Your task to perform on an android device: add a contact Image 0: 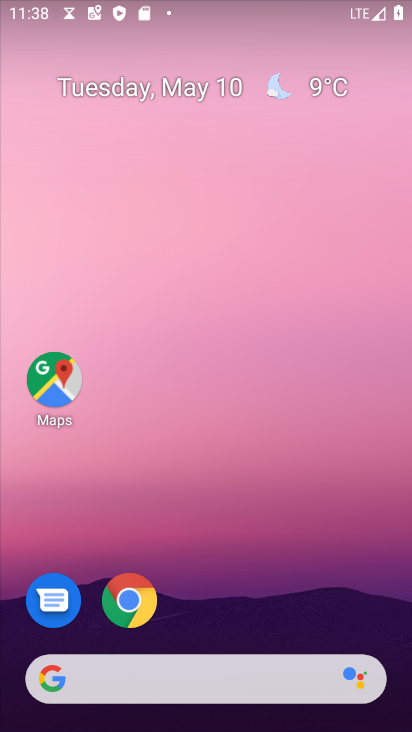
Step 0: drag from (253, 585) to (143, 50)
Your task to perform on an android device: add a contact Image 1: 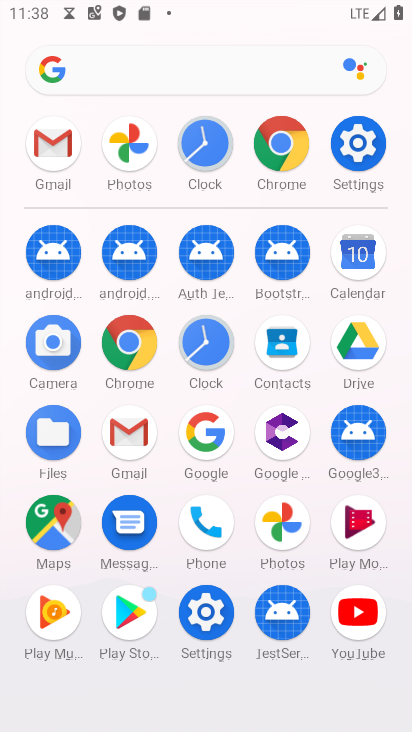
Step 1: click (278, 355)
Your task to perform on an android device: add a contact Image 2: 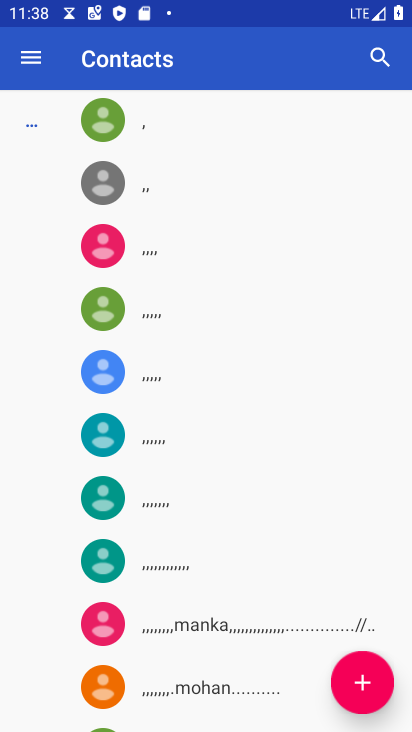
Step 2: click (370, 678)
Your task to perform on an android device: add a contact Image 3: 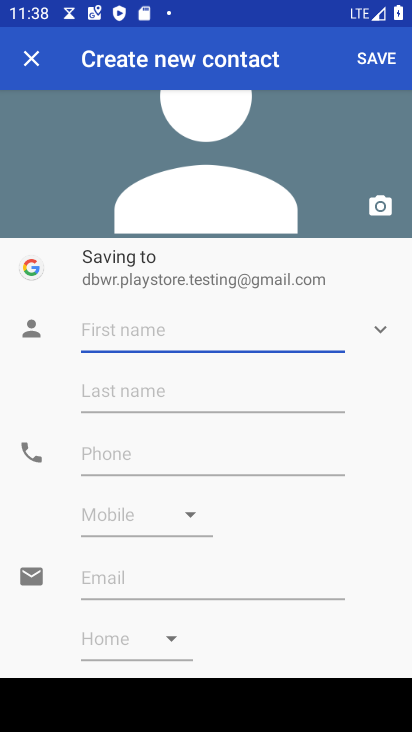
Step 3: type "ghdfg"
Your task to perform on an android device: add a contact Image 4: 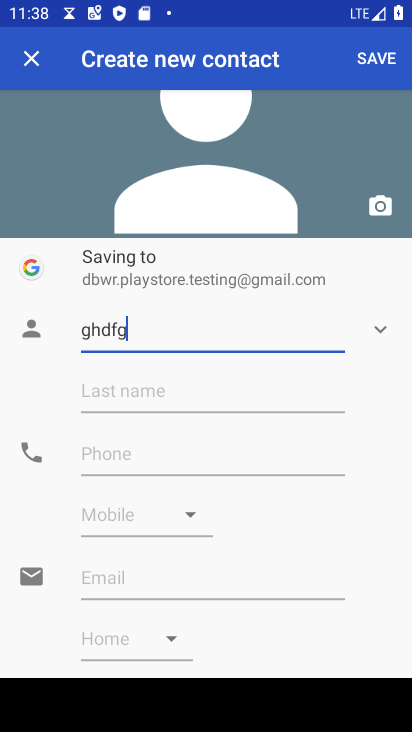
Step 4: click (190, 386)
Your task to perform on an android device: add a contact Image 5: 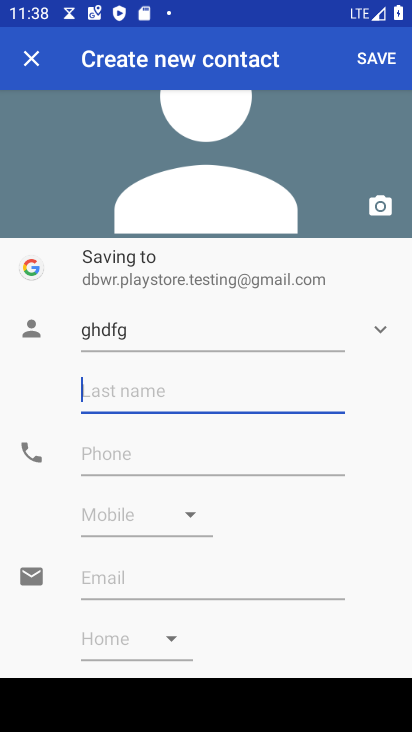
Step 5: type "htyth"
Your task to perform on an android device: add a contact Image 6: 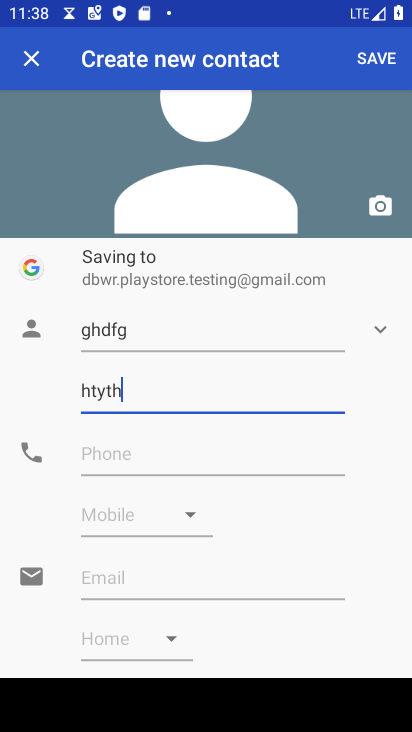
Step 6: type ""
Your task to perform on an android device: add a contact Image 7: 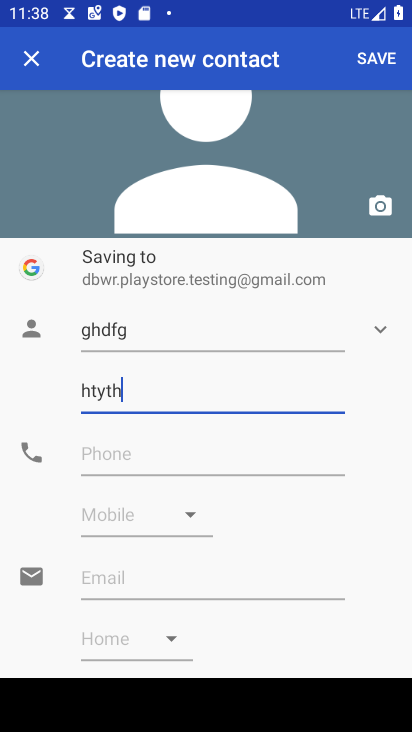
Step 7: click (220, 461)
Your task to perform on an android device: add a contact Image 8: 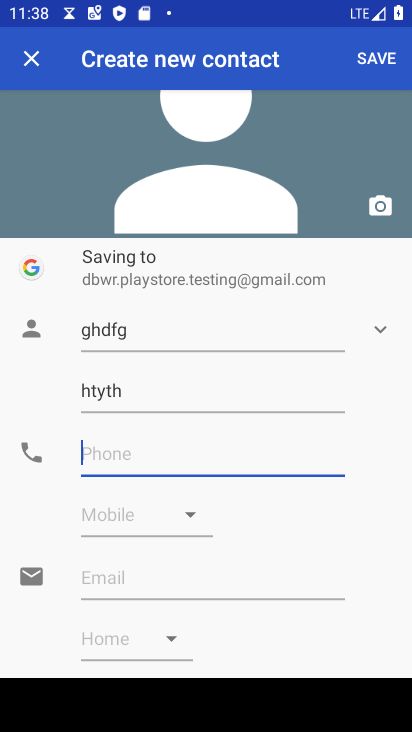
Step 8: type "5646554"
Your task to perform on an android device: add a contact Image 9: 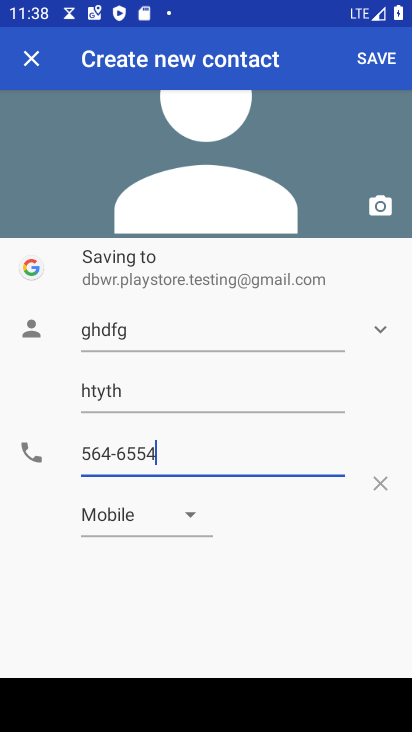
Step 9: type ""
Your task to perform on an android device: add a contact Image 10: 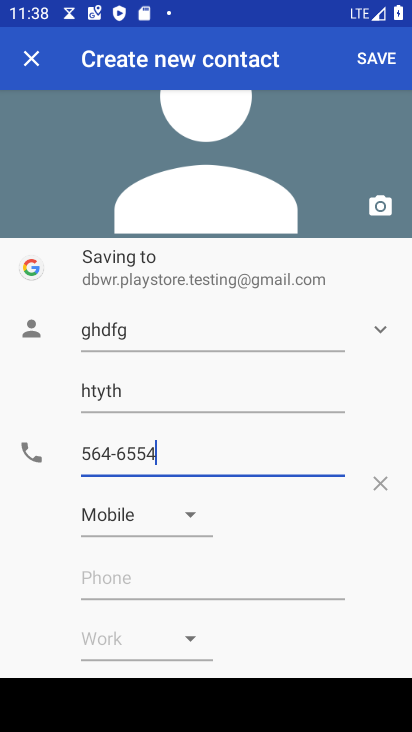
Step 10: click (381, 59)
Your task to perform on an android device: add a contact Image 11: 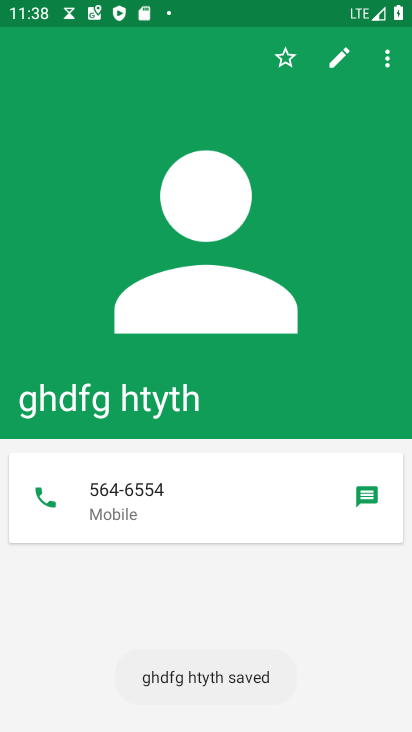
Step 11: task complete